Your task to perform on an android device: check storage Image 0: 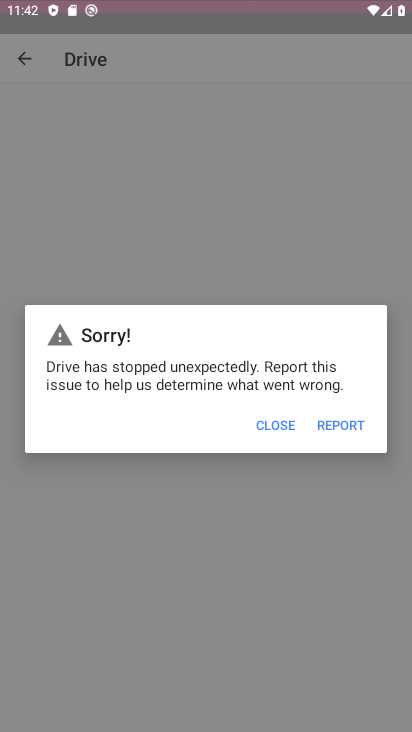
Step 0: click (131, 634)
Your task to perform on an android device: check storage Image 1: 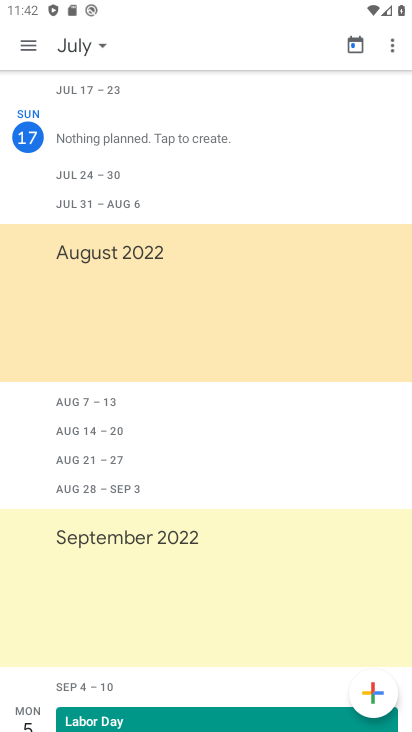
Step 1: press home button
Your task to perform on an android device: check storage Image 2: 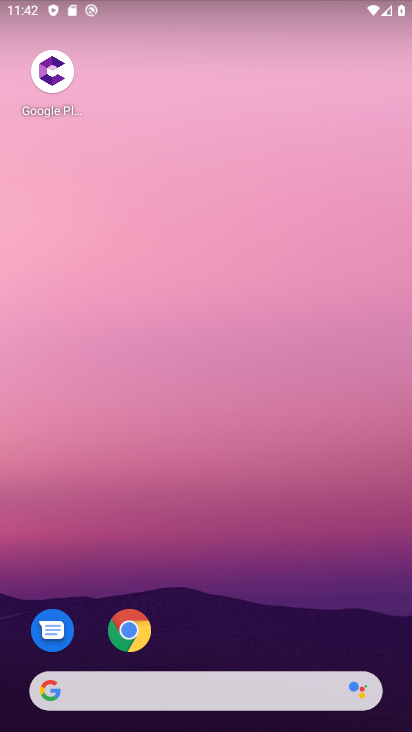
Step 2: drag from (212, 651) to (160, 102)
Your task to perform on an android device: check storage Image 3: 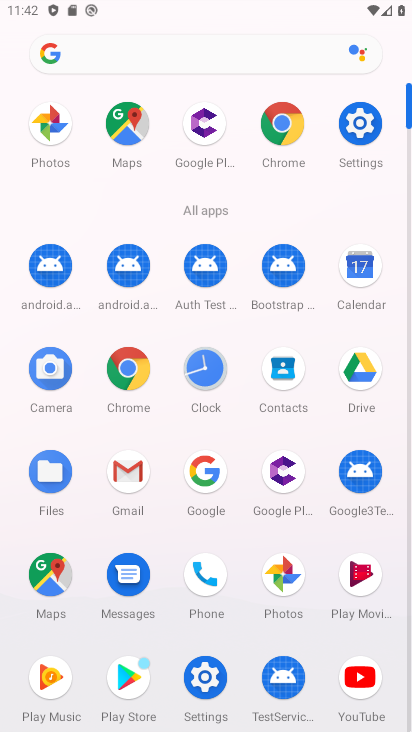
Step 3: click (349, 127)
Your task to perform on an android device: check storage Image 4: 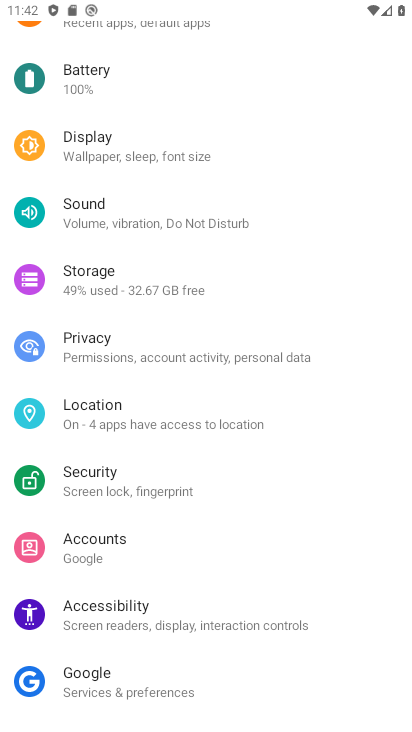
Step 4: click (105, 279)
Your task to perform on an android device: check storage Image 5: 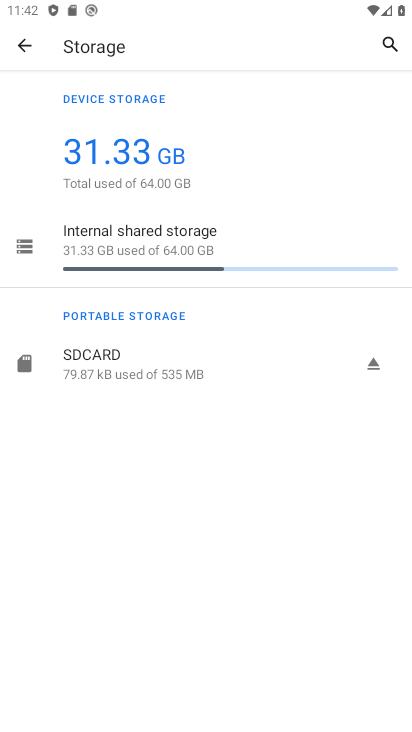
Step 5: task complete